Your task to perform on an android device: Open Amazon Image 0: 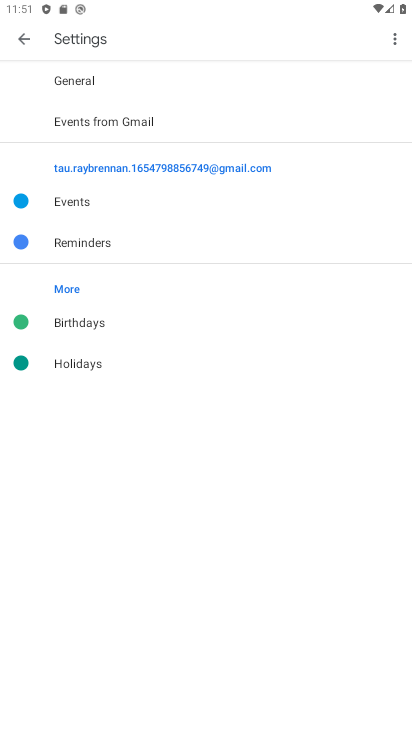
Step 0: press home button
Your task to perform on an android device: Open Amazon Image 1: 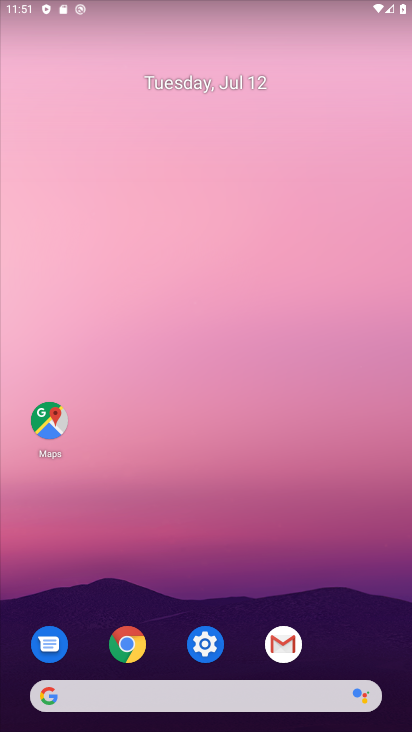
Step 1: click (126, 659)
Your task to perform on an android device: Open Amazon Image 2: 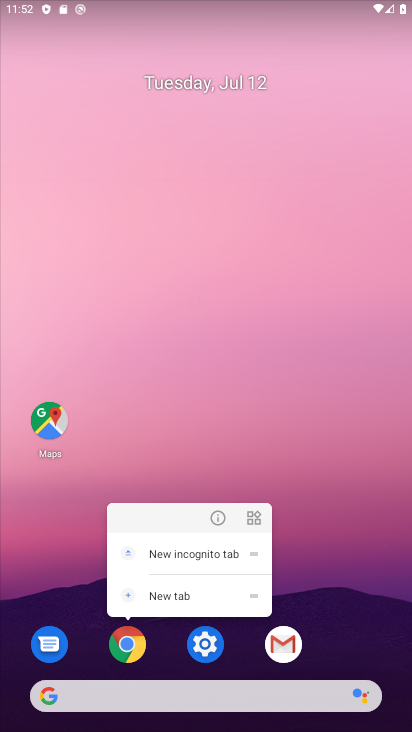
Step 2: click (126, 659)
Your task to perform on an android device: Open Amazon Image 3: 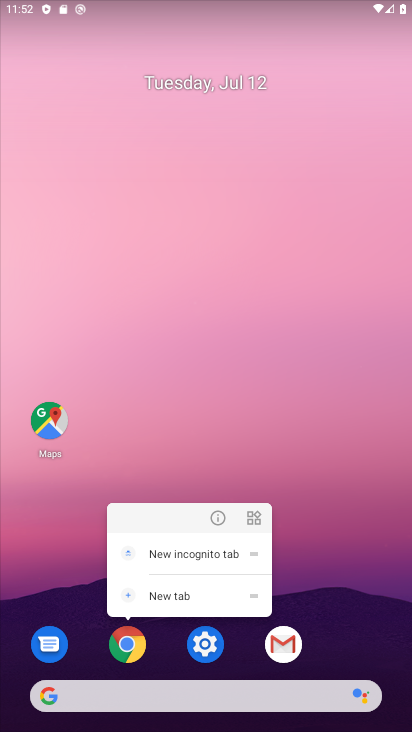
Step 3: click (126, 661)
Your task to perform on an android device: Open Amazon Image 4: 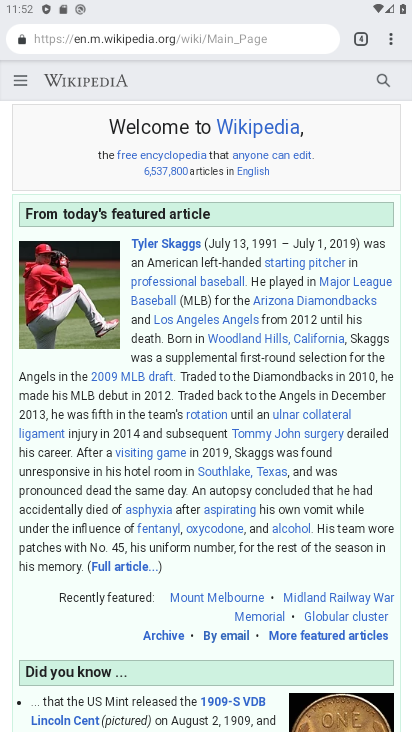
Step 4: click (357, 47)
Your task to perform on an android device: Open Amazon Image 5: 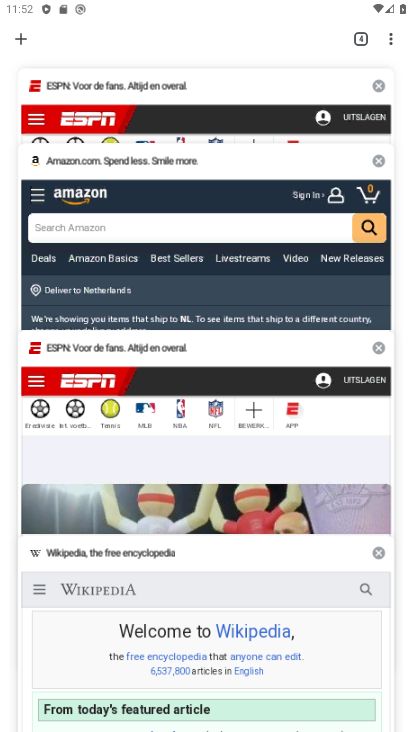
Step 5: click (20, 34)
Your task to perform on an android device: Open Amazon Image 6: 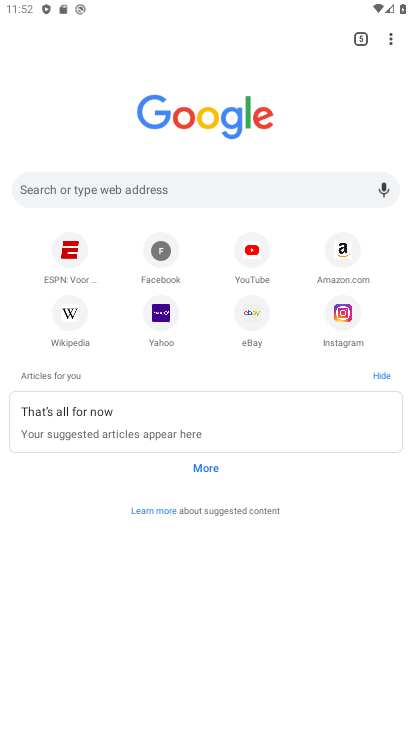
Step 6: click (347, 252)
Your task to perform on an android device: Open Amazon Image 7: 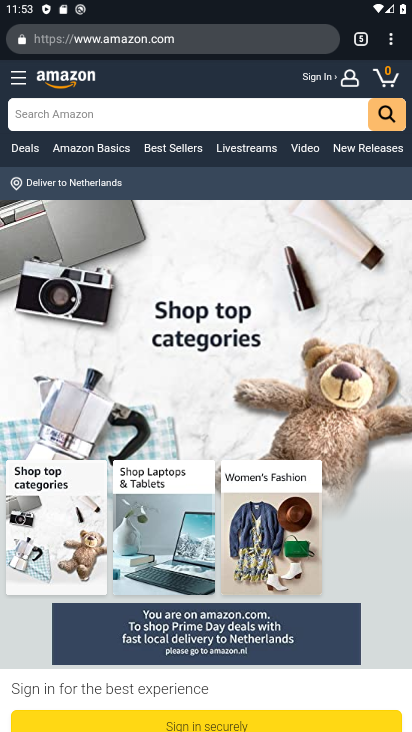
Step 7: task complete